Your task to perform on an android device: turn on wifi Image 0: 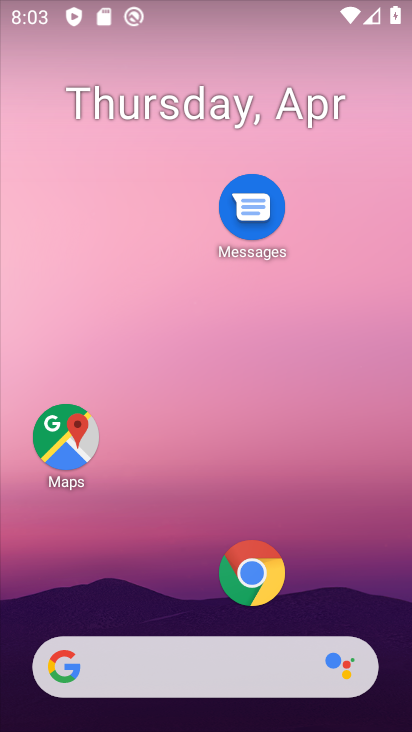
Step 0: drag from (161, 24) to (164, 456)
Your task to perform on an android device: turn on wifi Image 1: 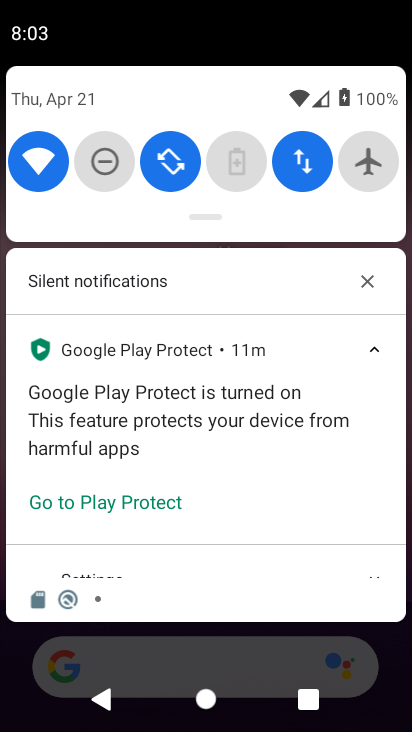
Step 1: task complete